Your task to perform on an android device: toggle translation in the chrome app Image 0: 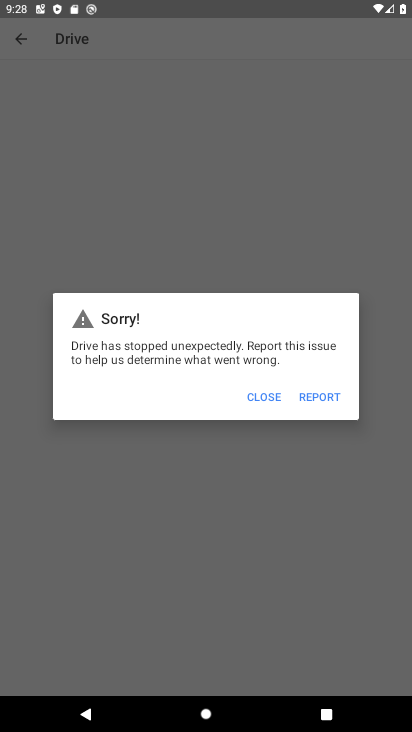
Step 0: press home button
Your task to perform on an android device: toggle translation in the chrome app Image 1: 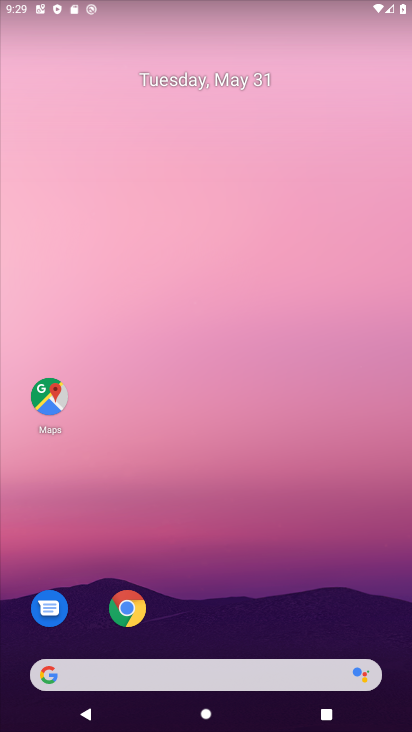
Step 1: click (116, 600)
Your task to perform on an android device: toggle translation in the chrome app Image 2: 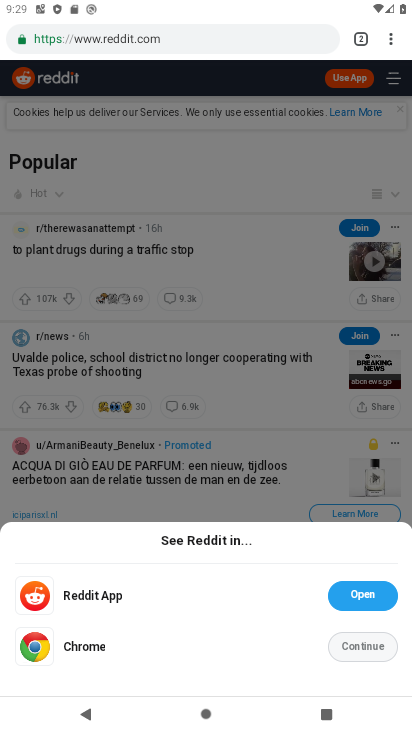
Step 2: task complete